Your task to perform on an android device: What's on my calendar tomorrow? Image 0: 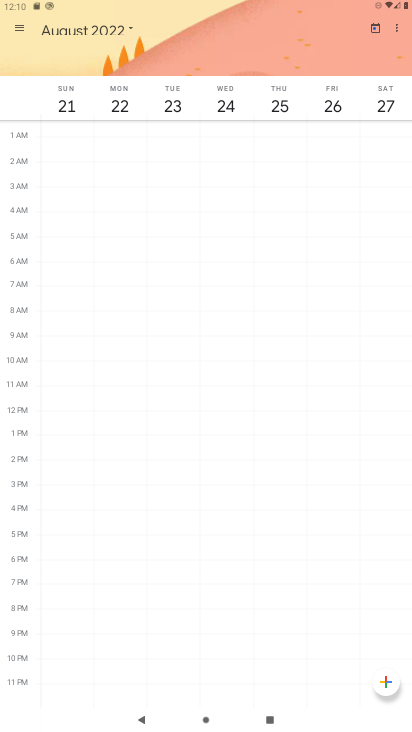
Step 0: press home button
Your task to perform on an android device: What's on my calendar tomorrow? Image 1: 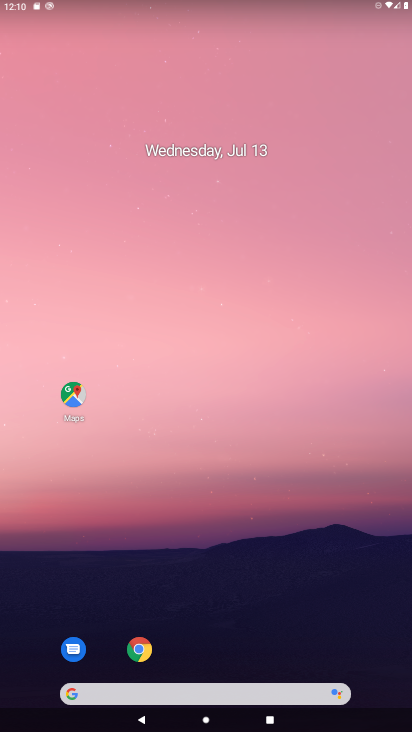
Step 1: drag from (369, 669) to (309, 127)
Your task to perform on an android device: What's on my calendar tomorrow? Image 2: 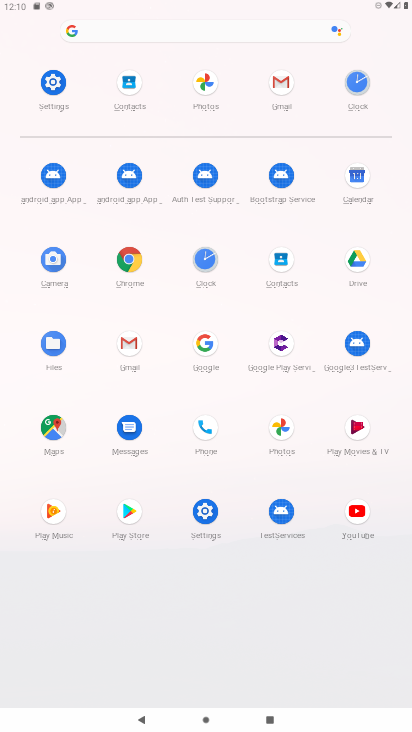
Step 2: click (354, 175)
Your task to perform on an android device: What's on my calendar tomorrow? Image 3: 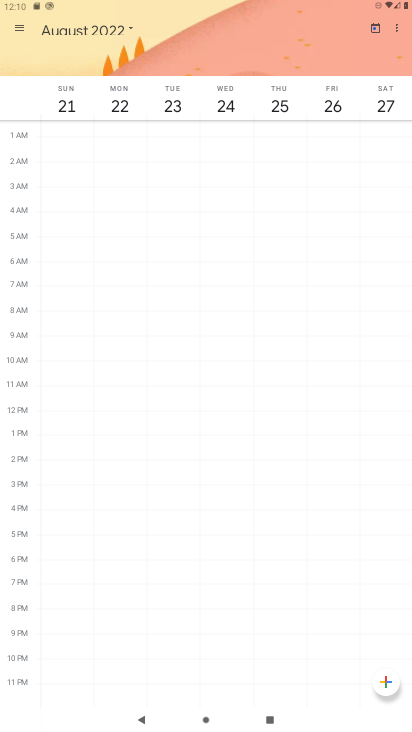
Step 3: click (17, 27)
Your task to perform on an android device: What's on my calendar tomorrow? Image 4: 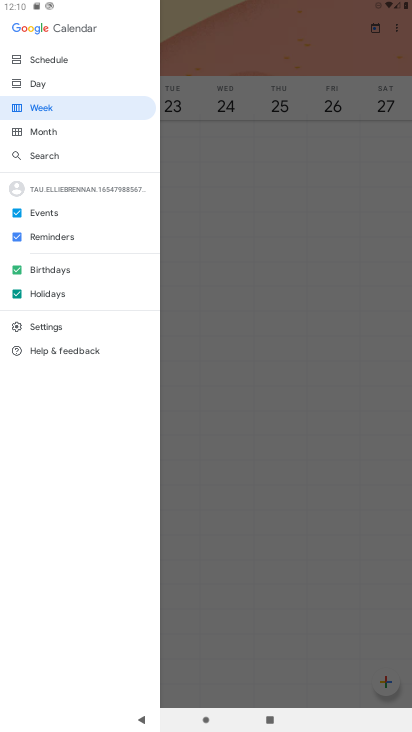
Step 4: click (28, 80)
Your task to perform on an android device: What's on my calendar tomorrow? Image 5: 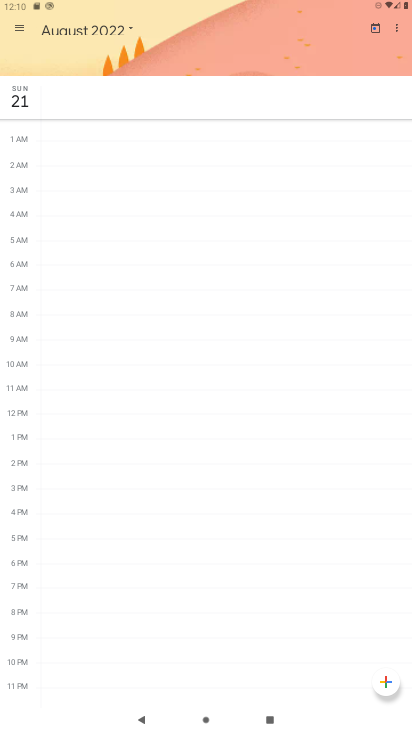
Step 5: click (119, 27)
Your task to perform on an android device: What's on my calendar tomorrow? Image 6: 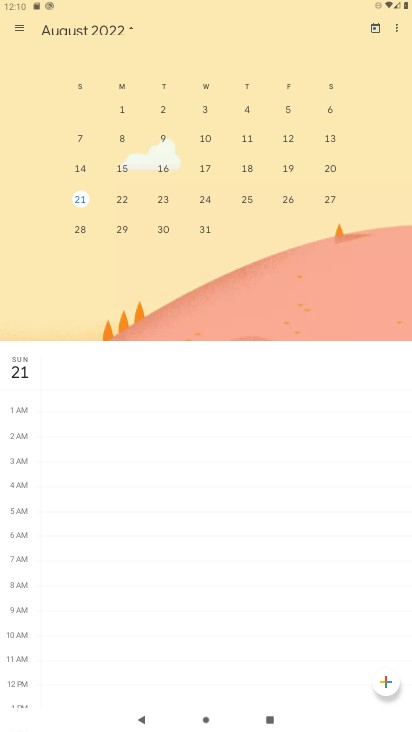
Step 6: drag from (80, 228) to (411, 213)
Your task to perform on an android device: What's on my calendar tomorrow? Image 7: 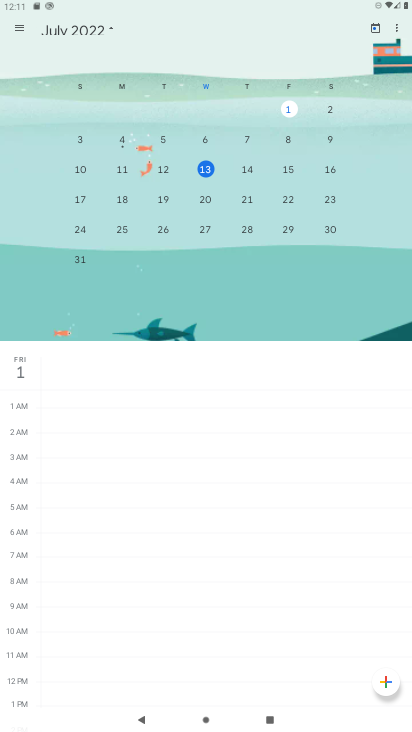
Step 7: click (243, 167)
Your task to perform on an android device: What's on my calendar tomorrow? Image 8: 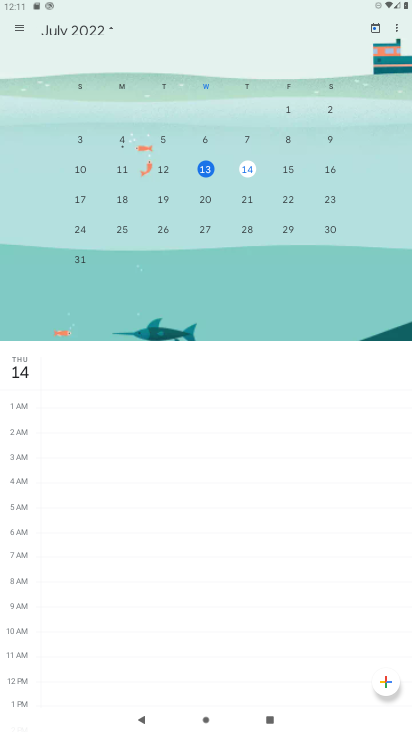
Step 8: task complete